Your task to perform on an android device: Open the calendar app, open the side menu, and click the "Day" option Image 0: 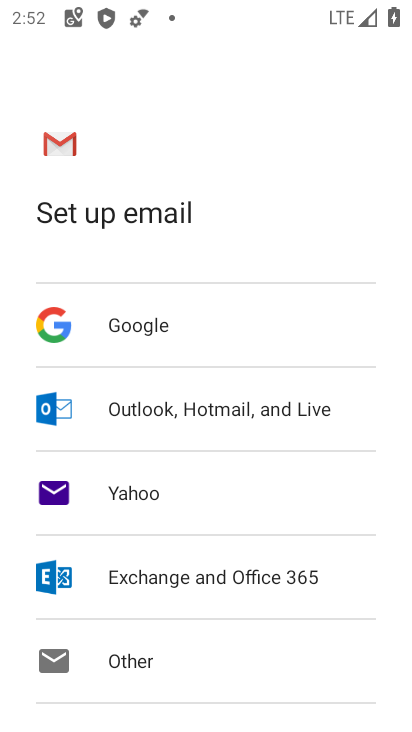
Step 0: press home button
Your task to perform on an android device: Open the calendar app, open the side menu, and click the "Day" option Image 1: 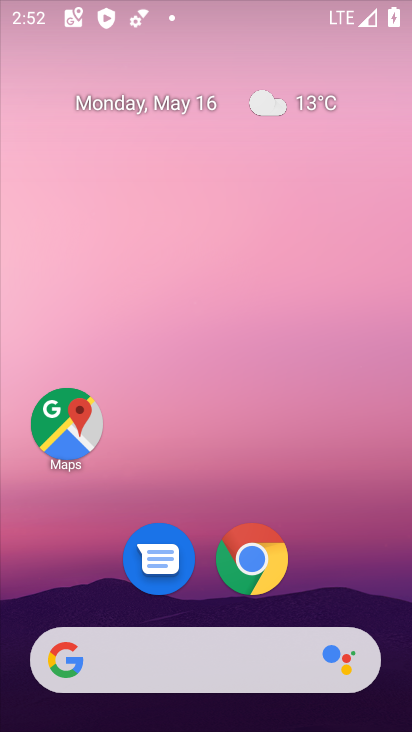
Step 1: drag from (193, 555) to (234, 31)
Your task to perform on an android device: Open the calendar app, open the side menu, and click the "Day" option Image 2: 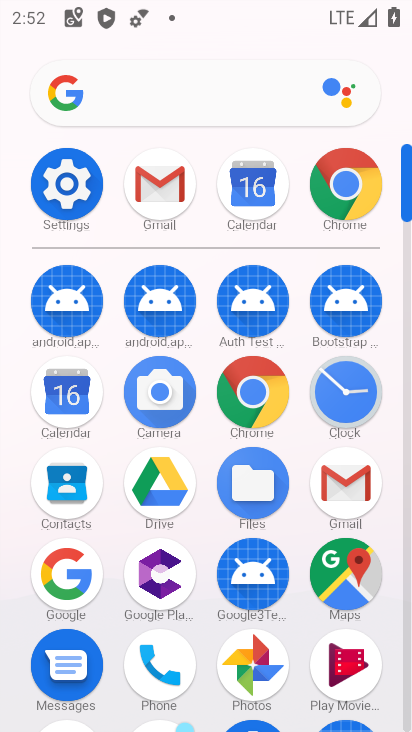
Step 2: click (43, 390)
Your task to perform on an android device: Open the calendar app, open the side menu, and click the "Day" option Image 3: 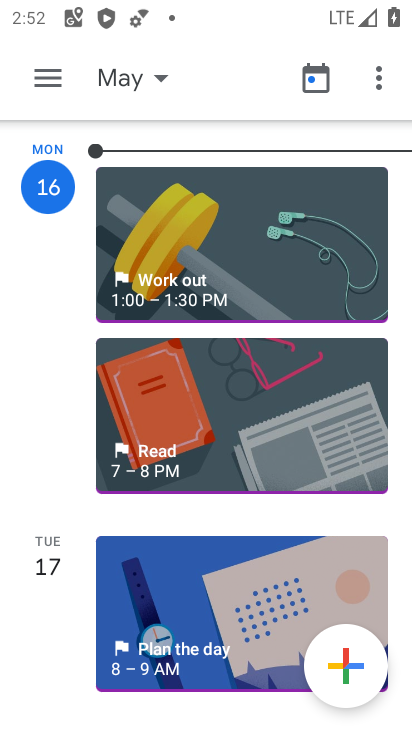
Step 3: click (50, 77)
Your task to perform on an android device: Open the calendar app, open the side menu, and click the "Day" option Image 4: 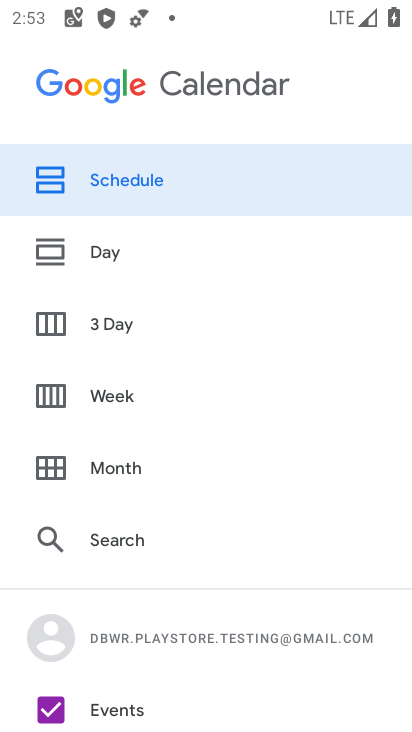
Step 4: click (110, 255)
Your task to perform on an android device: Open the calendar app, open the side menu, and click the "Day" option Image 5: 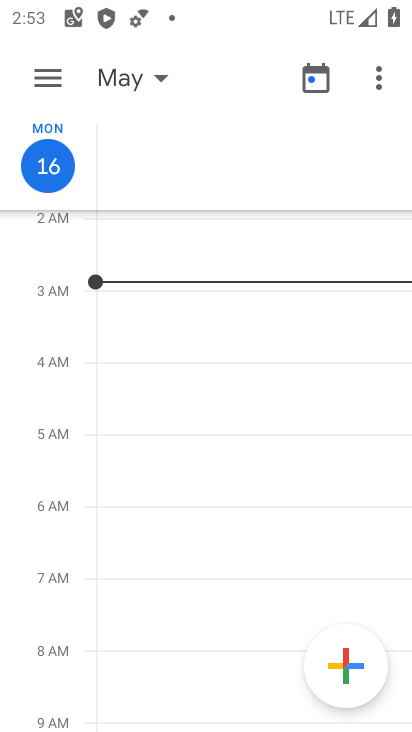
Step 5: task complete